Your task to perform on an android device: Open sound settings Image 0: 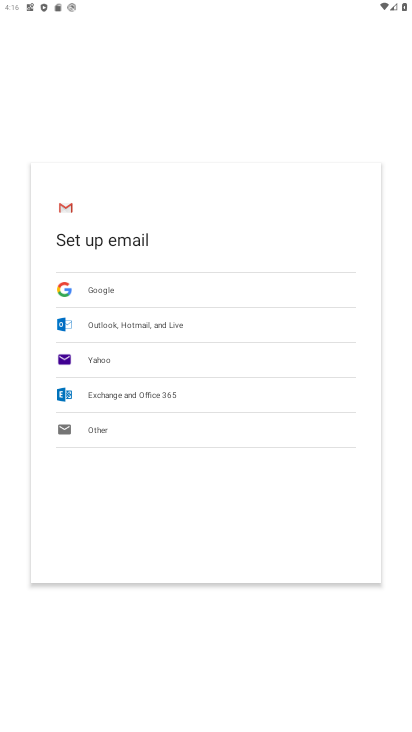
Step 0: press home button
Your task to perform on an android device: Open sound settings Image 1: 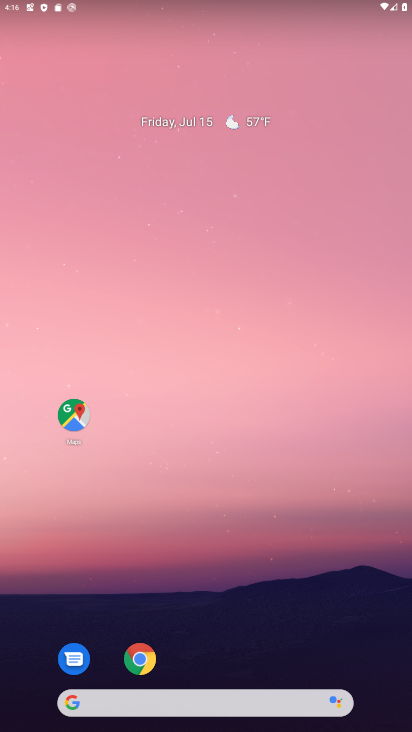
Step 1: drag from (237, 658) to (132, 109)
Your task to perform on an android device: Open sound settings Image 2: 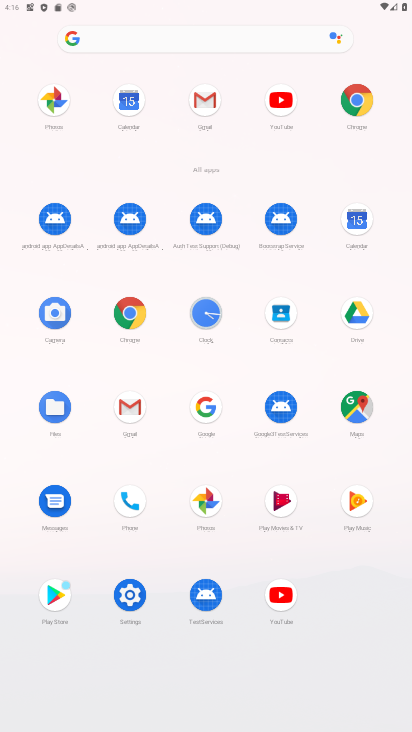
Step 2: click (138, 593)
Your task to perform on an android device: Open sound settings Image 3: 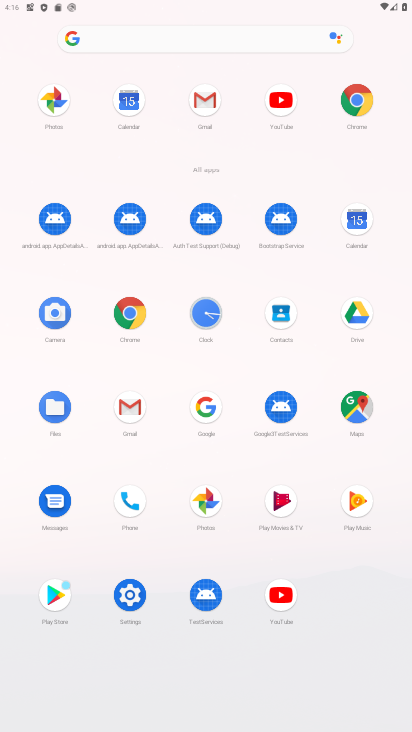
Step 3: click (121, 593)
Your task to perform on an android device: Open sound settings Image 4: 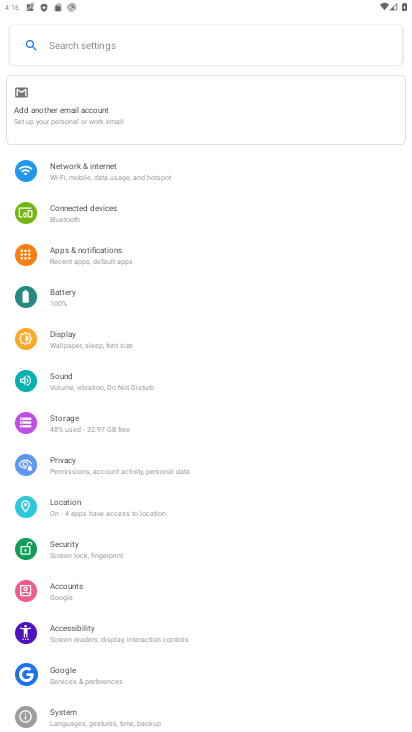
Step 4: click (63, 388)
Your task to perform on an android device: Open sound settings Image 5: 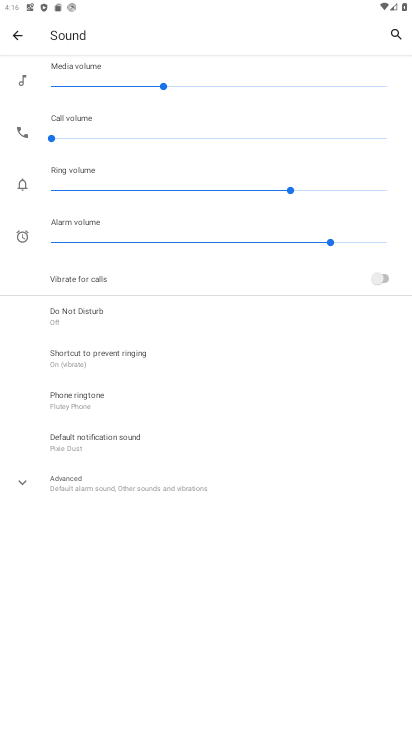
Step 5: task complete